Your task to perform on an android device: change notifications settings Image 0: 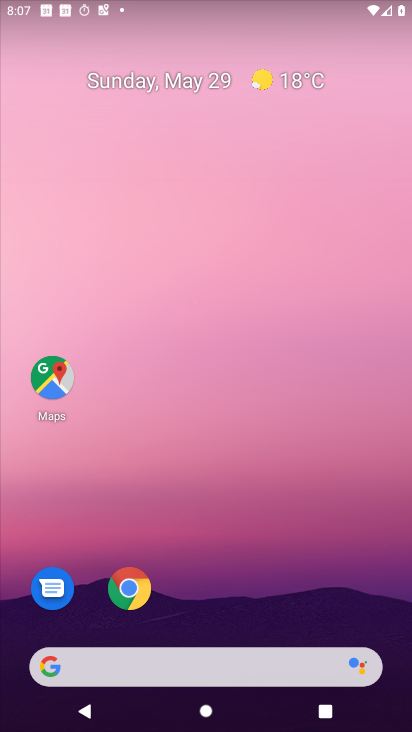
Step 0: drag from (295, 561) to (361, 148)
Your task to perform on an android device: change notifications settings Image 1: 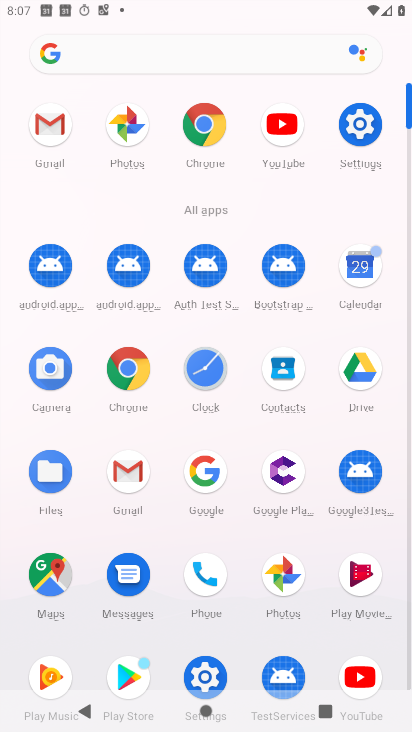
Step 1: click (361, 128)
Your task to perform on an android device: change notifications settings Image 2: 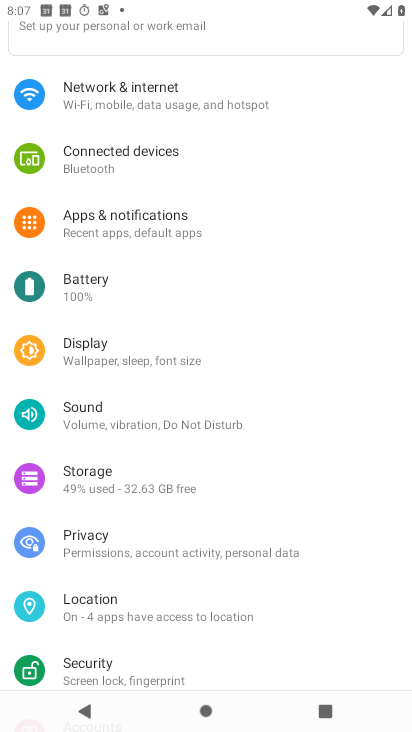
Step 2: click (168, 218)
Your task to perform on an android device: change notifications settings Image 3: 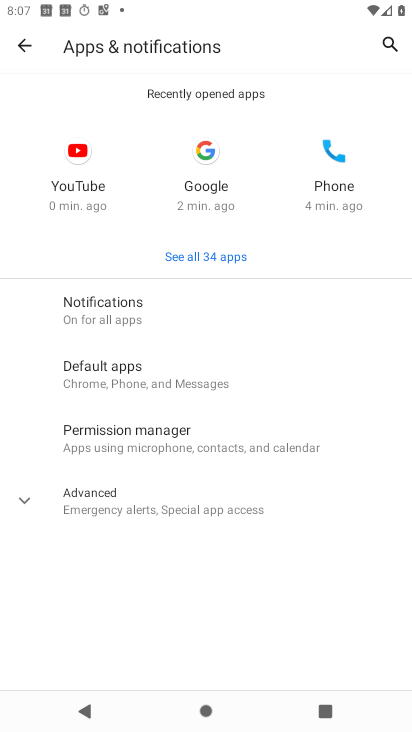
Step 3: click (130, 307)
Your task to perform on an android device: change notifications settings Image 4: 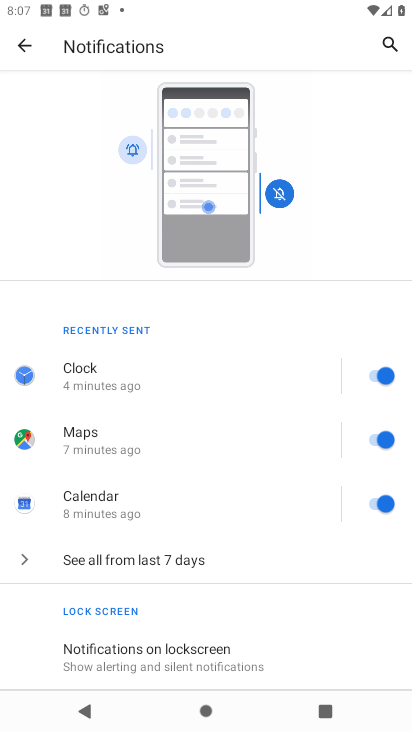
Step 4: drag from (265, 597) to (352, 176)
Your task to perform on an android device: change notifications settings Image 5: 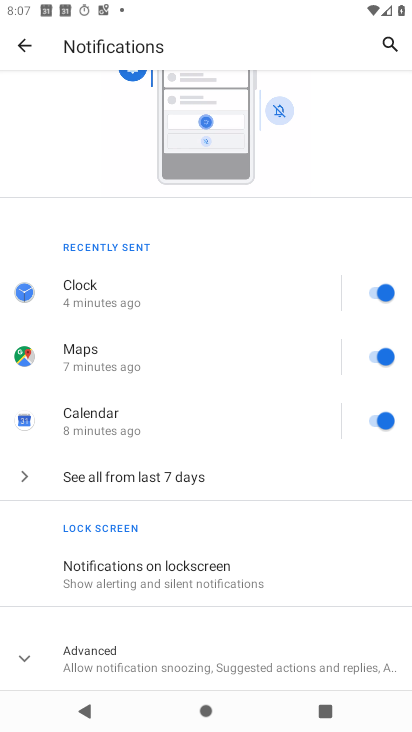
Step 5: click (128, 651)
Your task to perform on an android device: change notifications settings Image 6: 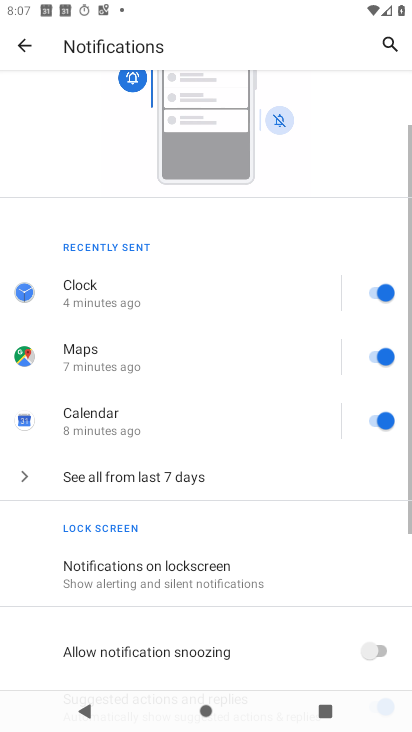
Step 6: drag from (256, 583) to (333, 170)
Your task to perform on an android device: change notifications settings Image 7: 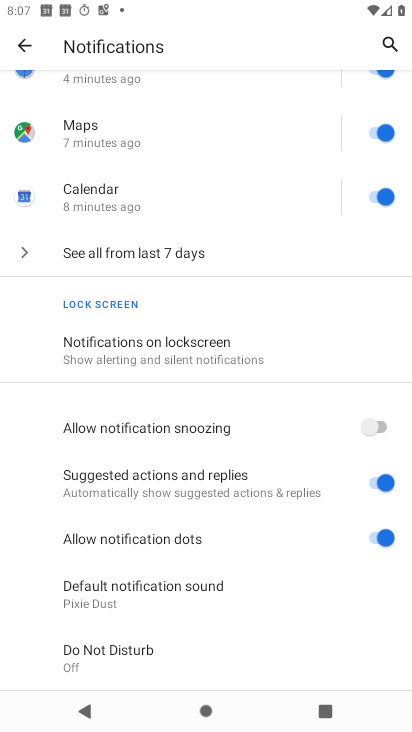
Step 7: click (384, 426)
Your task to perform on an android device: change notifications settings Image 8: 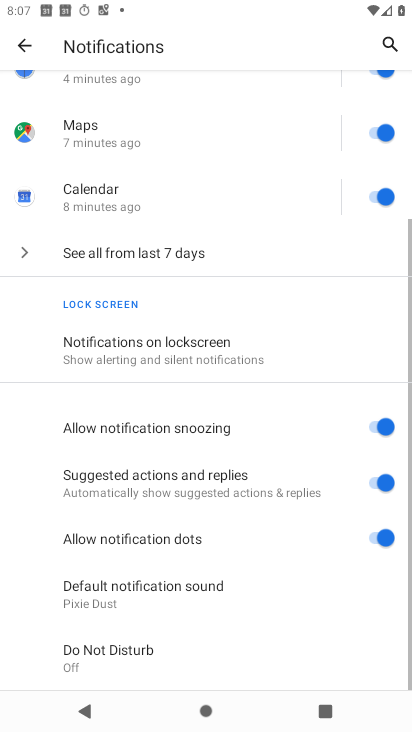
Step 8: click (381, 489)
Your task to perform on an android device: change notifications settings Image 9: 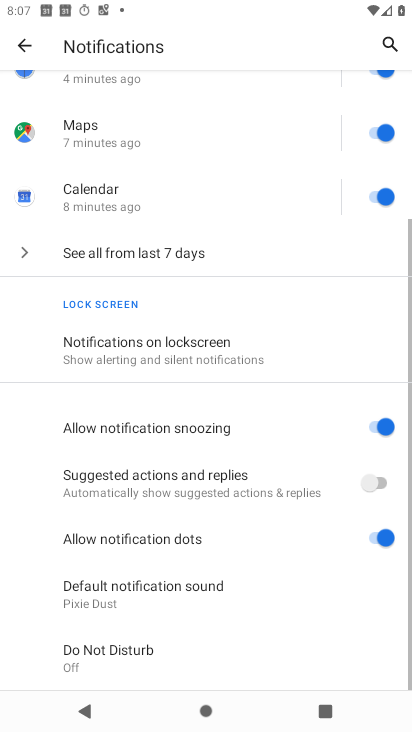
Step 9: click (380, 541)
Your task to perform on an android device: change notifications settings Image 10: 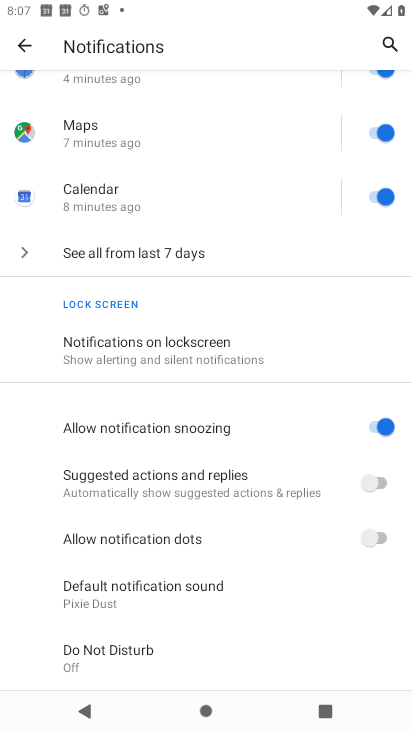
Step 10: task complete